Your task to perform on an android device: turn on the 12-hour format for clock Image 0: 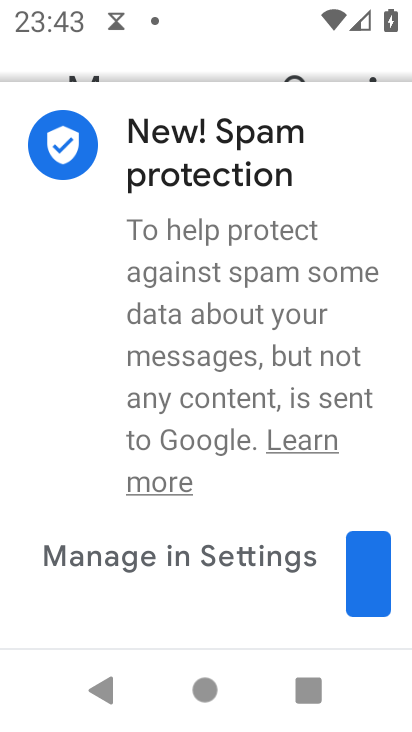
Step 0: press home button
Your task to perform on an android device: turn on the 12-hour format for clock Image 1: 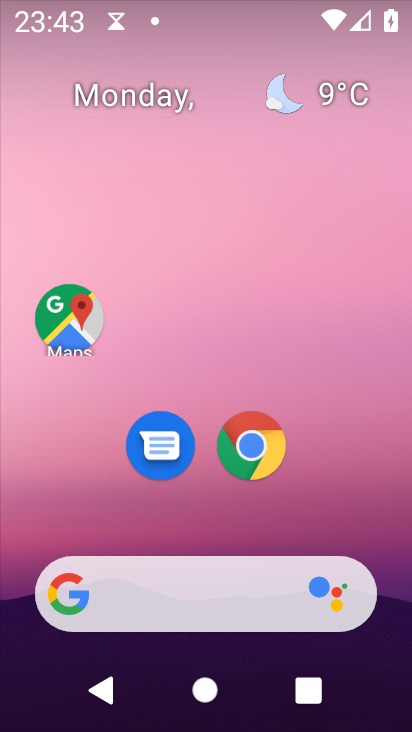
Step 1: drag from (302, 523) to (364, 9)
Your task to perform on an android device: turn on the 12-hour format for clock Image 2: 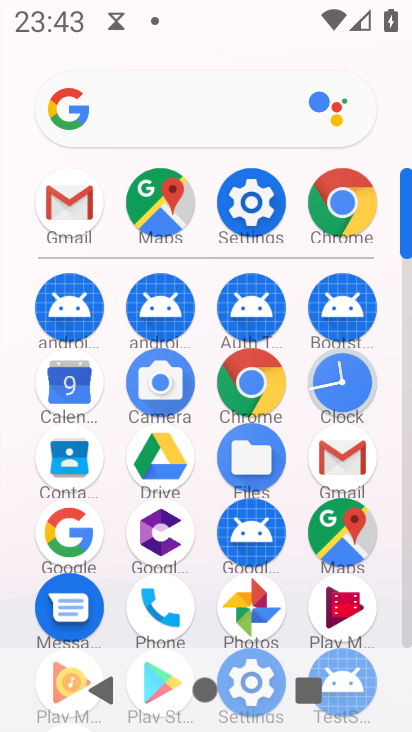
Step 2: click (343, 395)
Your task to perform on an android device: turn on the 12-hour format for clock Image 3: 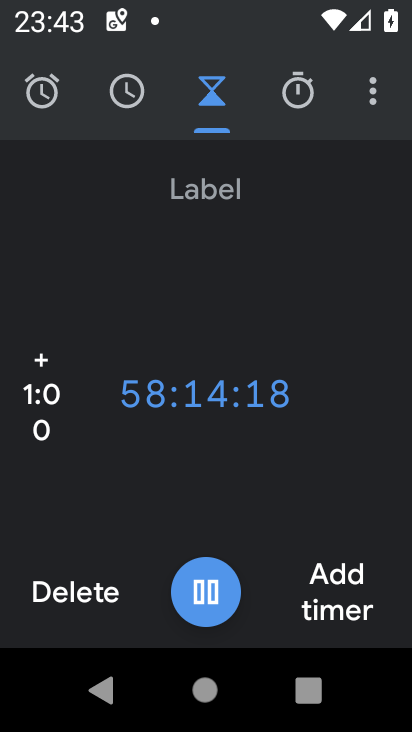
Step 3: click (380, 97)
Your task to perform on an android device: turn on the 12-hour format for clock Image 4: 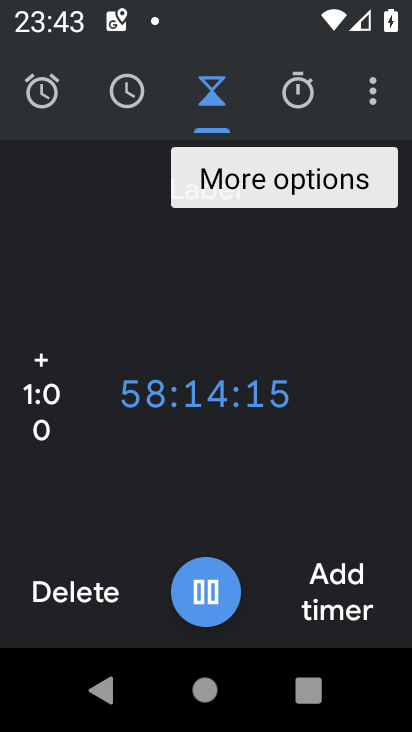
Step 4: click (365, 93)
Your task to perform on an android device: turn on the 12-hour format for clock Image 5: 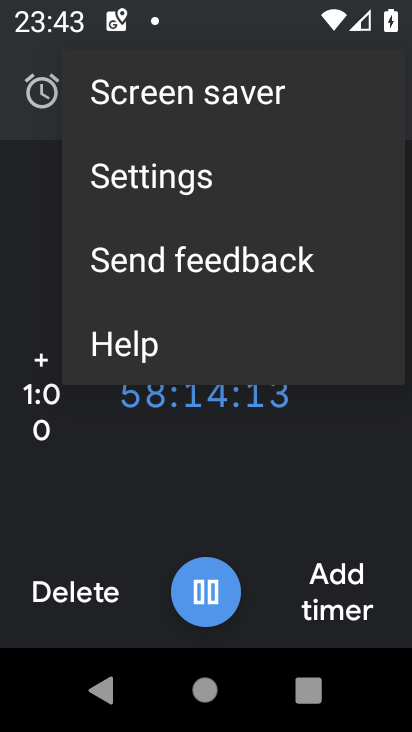
Step 5: click (196, 166)
Your task to perform on an android device: turn on the 12-hour format for clock Image 6: 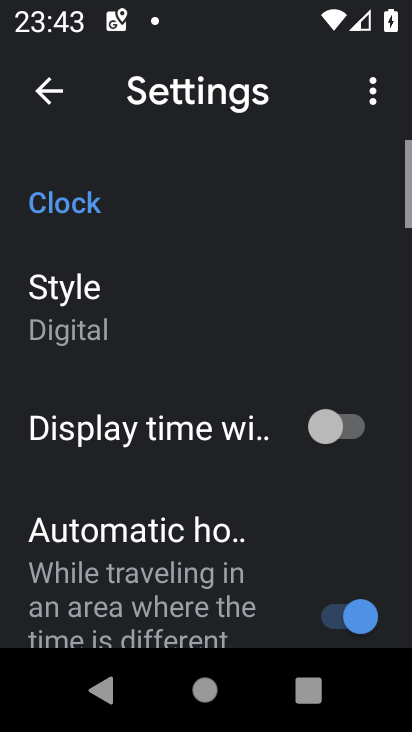
Step 6: drag from (168, 635) to (211, 134)
Your task to perform on an android device: turn on the 12-hour format for clock Image 7: 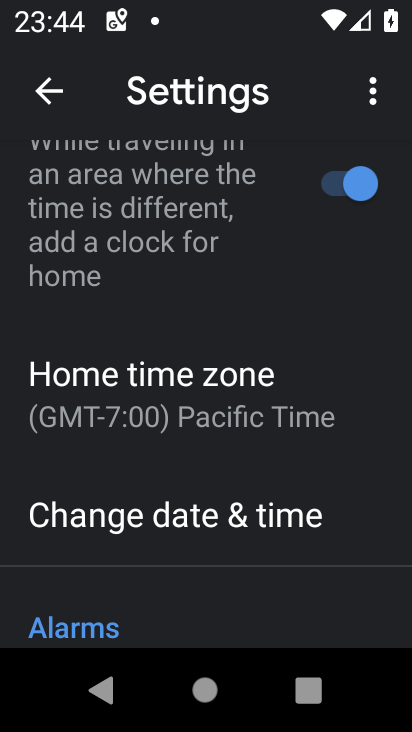
Step 7: drag from (224, 293) to (260, 258)
Your task to perform on an android device: turn on the 12-hour format for clock Image 8: 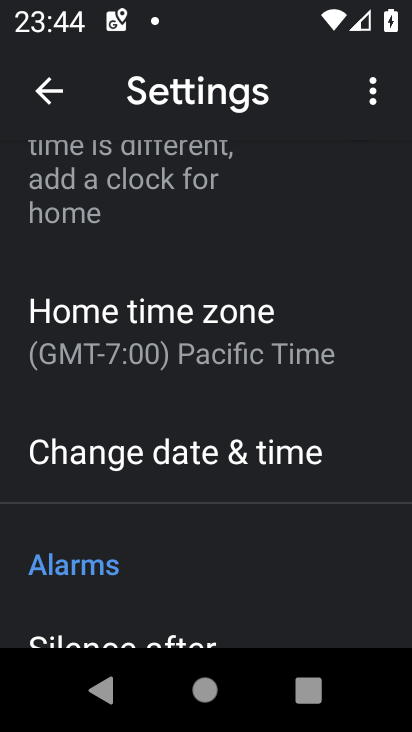
Step 8: click (197, 441)
Your task to perform on an android device: turn on the 12-hour format for clock Image 9: 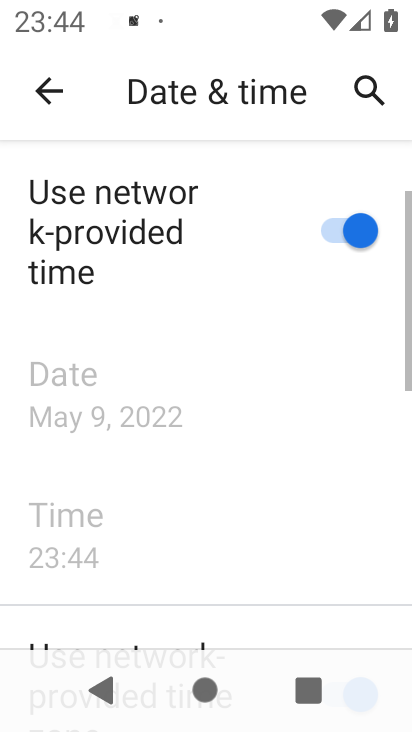
Step 9: drag from (282, 553) to (319, 95)
Your task to perform on an android device: turn on the 12-hour format for clock Image 10: 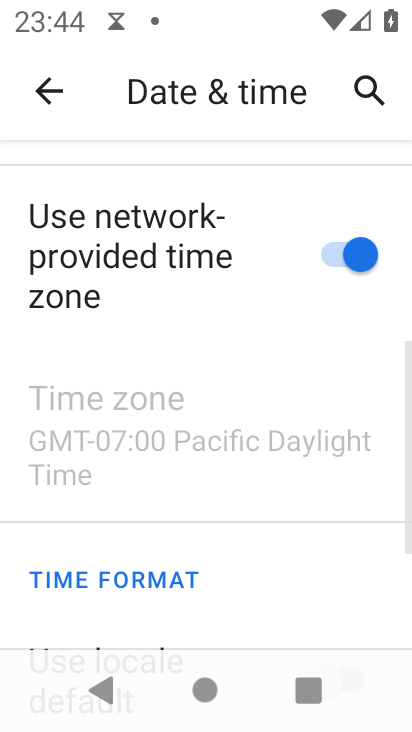
Step 10: drag from (261, 565) to (241, 70)
Your task to perform on an android device: turn on the 12-hour format for clock Image 11: 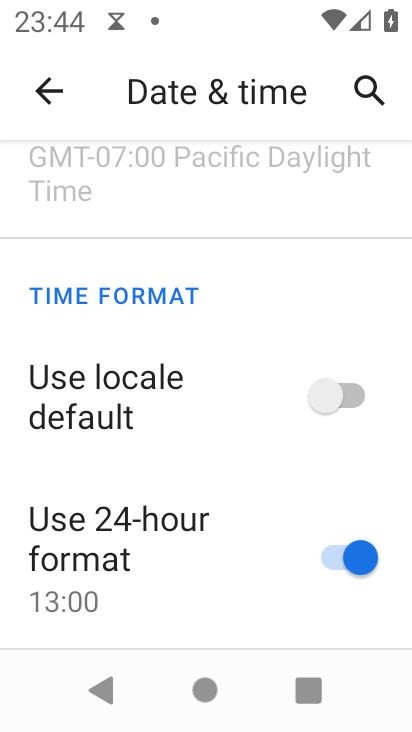
Step 11: click (334, 561)
Your task to perform on an android device: turn on the 12-hour format for clock Image 12: 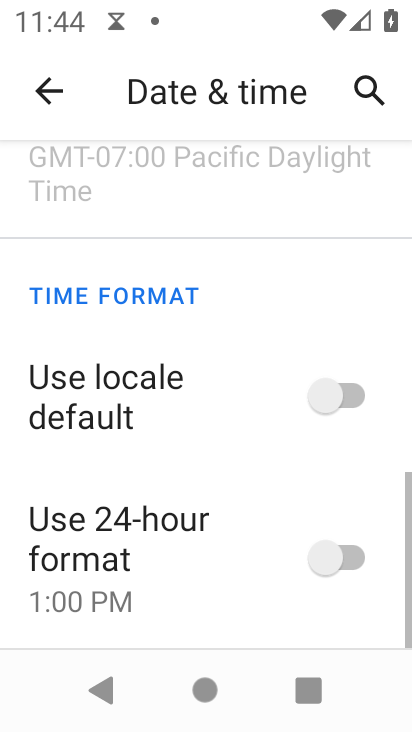
Step 12: task complete